Your task to perform on an android device: Open Android settings Image 0: 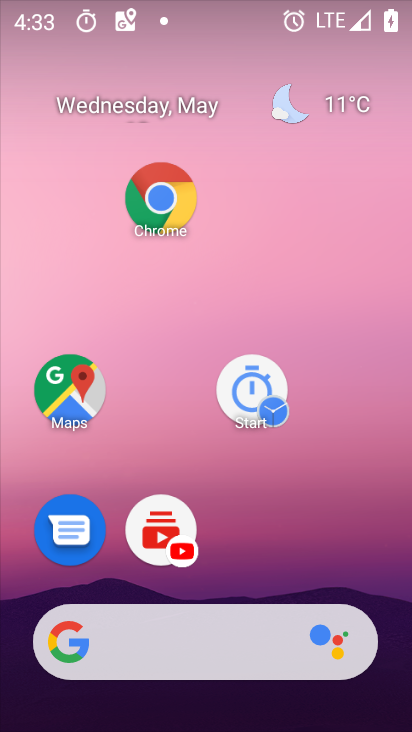
Step 0: drag from (294, 712) to (282, 87)
Your task to perform on an android device: Open Android settings Image 1: 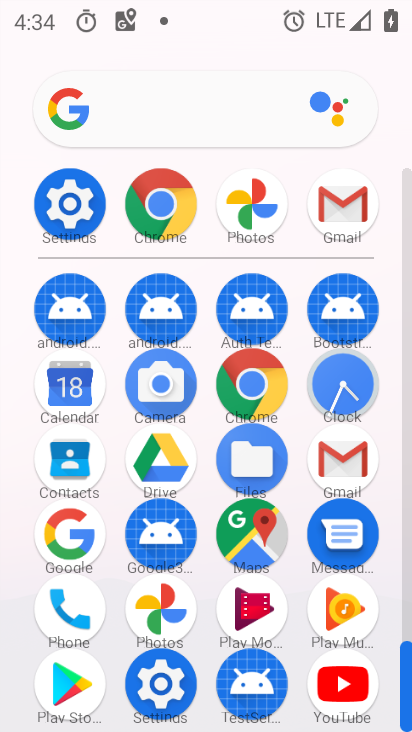
Step 1: click (55, 194)
Your task to perform on an android device: Open Android settings Image 2: 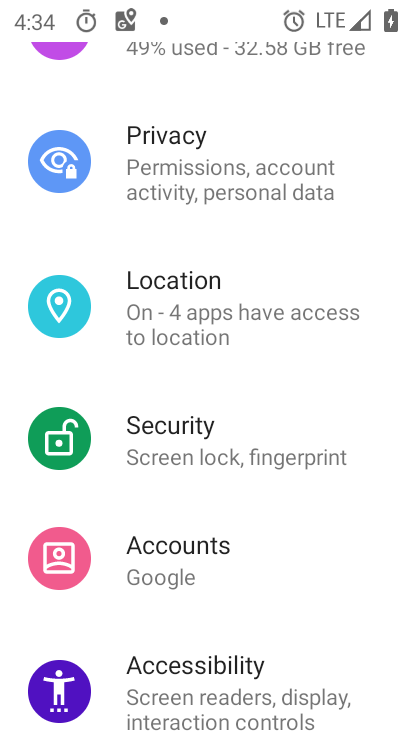
Step 2: drag from (183, 537) to (265, 242)
Your task to perform on an android device: Open Android settings Image 3: 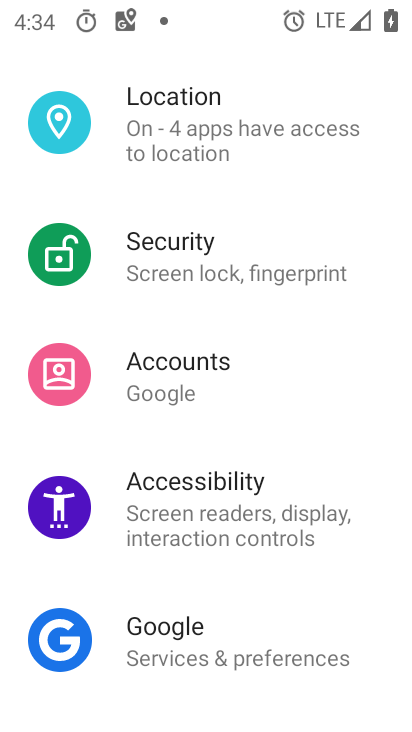
Step 3: drag from (313, 506) to (322, 218)
Your task to perform on an android device: Open Android settings Image 4: 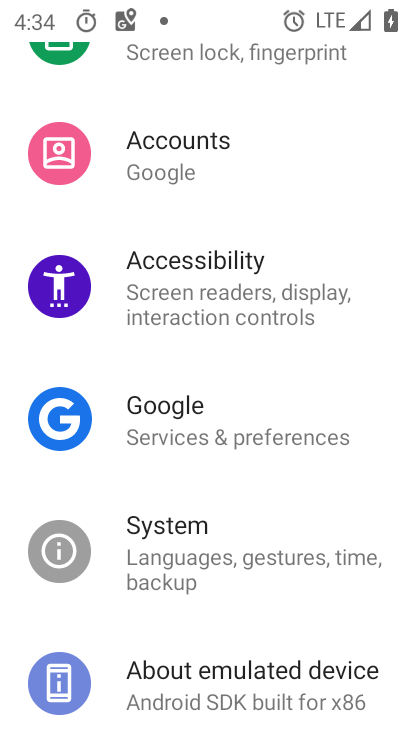
Step 4: drag from (255, 442) to (265, 114)
Your task to perform on an android device: Open Android settings Image 5: 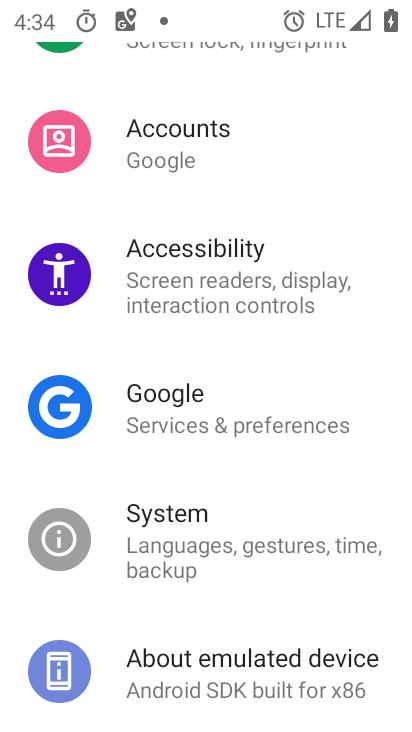
Step 5: click (189, 708)
Your task to perform on an android device: Open Android settings Image 6: 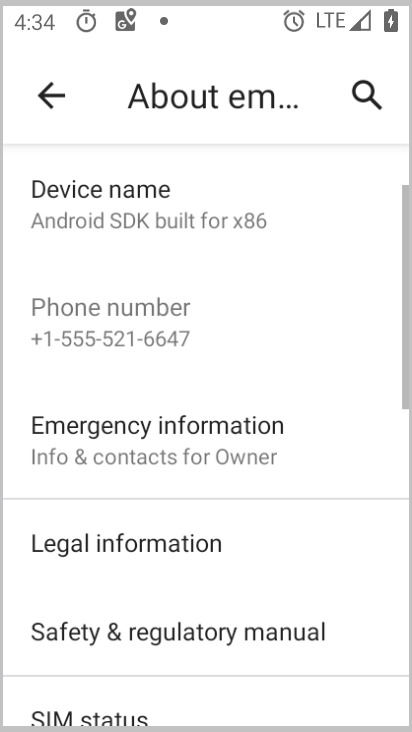
Step 6: click (178, 670)
Your task to perform on an android device: Open Android settings Image 7: 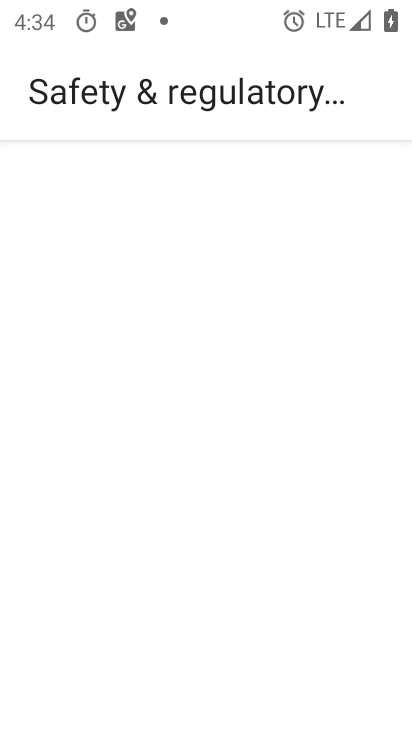
Step 7: task complete